Your task to perform on an android device: Go to Google maps Image 0: 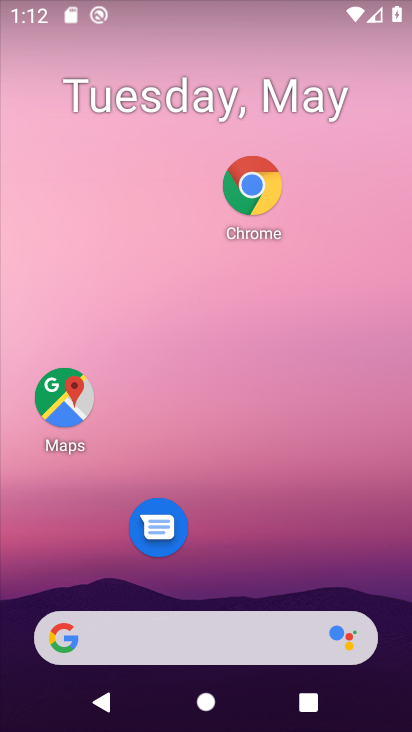
Step 0: click (55, 394)
Your task to perform on an android device: Go to Google maps Image 1: 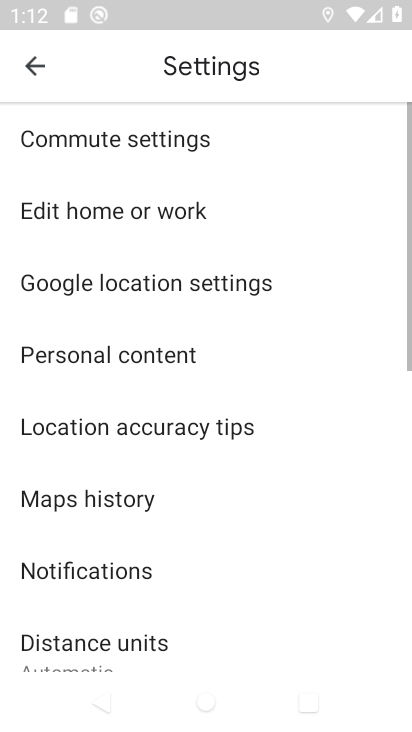
Step 1: click (32, 51)
Your task to perform on an android device: Go to Google maps Image 2: 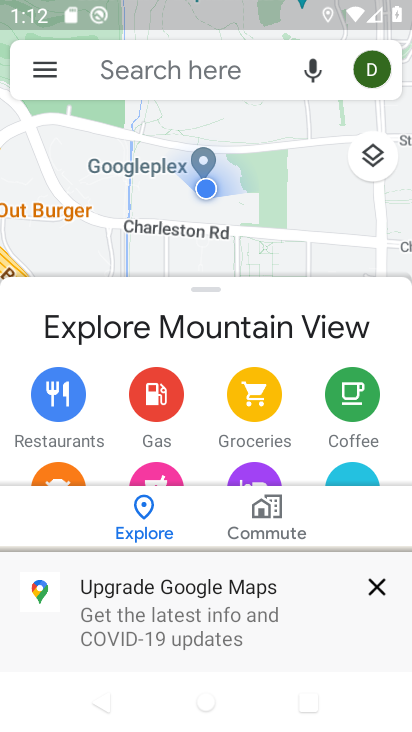
Step 2: task complete